Your task to perform on an android device: open app "Calculator" Image 0: 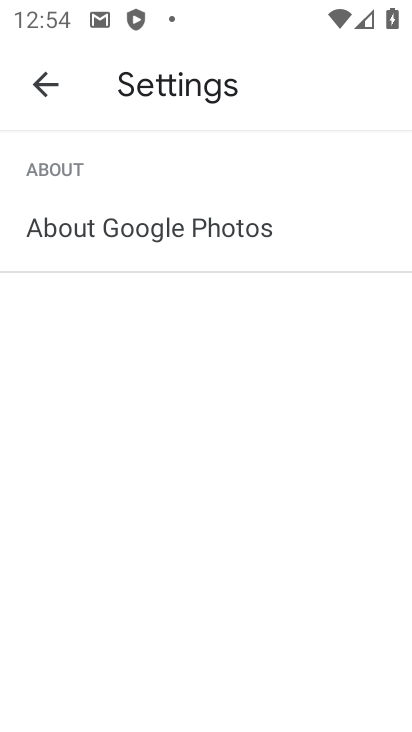
Step 0: press back button
Your task to perform on an android device: open app "Calculator" Image 1: 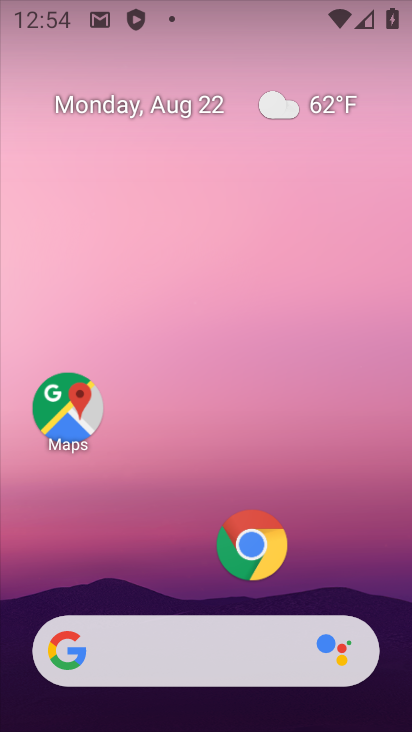
Step 1: drag from (150, 519) to (169, 25)
Your task to perform on an android device: open app "Calculator" Image 2: 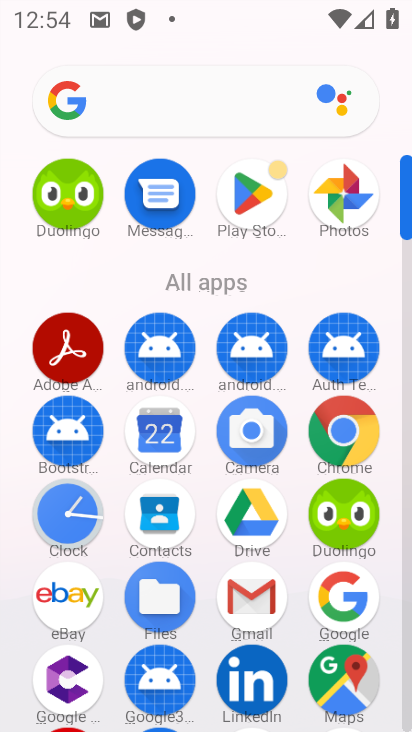
Step 2: click (251, 198)
Your task to perform on an android device: open app "Calculator" Image 3: 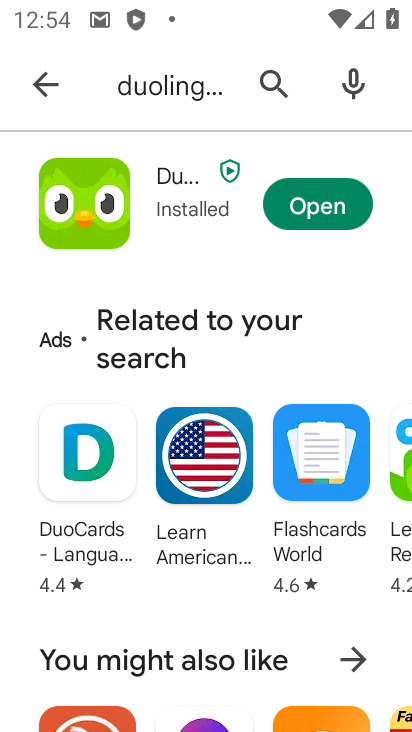
Step 3: click (258, 63)
Your task to perform on an android device: open app "Calculator" Image 4: 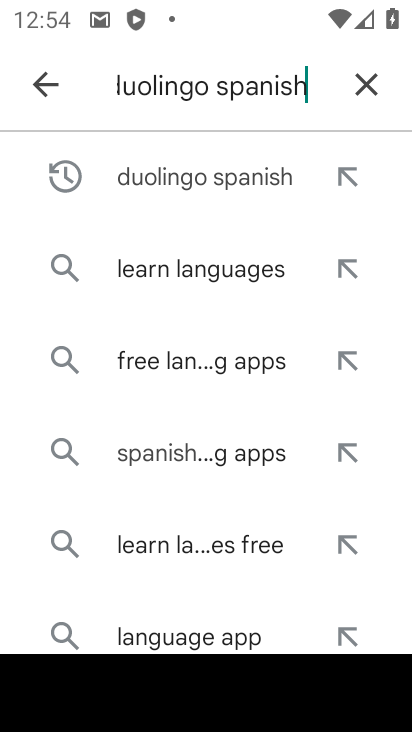
Step 4: click (374, 92)
Your task to perform on an android device: open app "Calculator" Image 5: 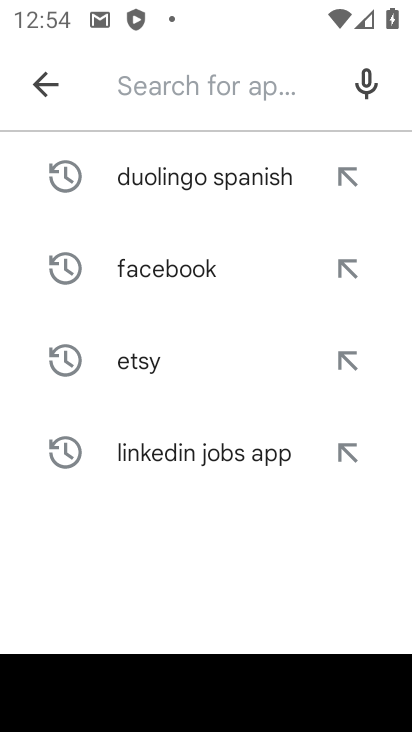
Step 5: press back button
Your task to perform on an android device: open app "Calculator" Image 6: 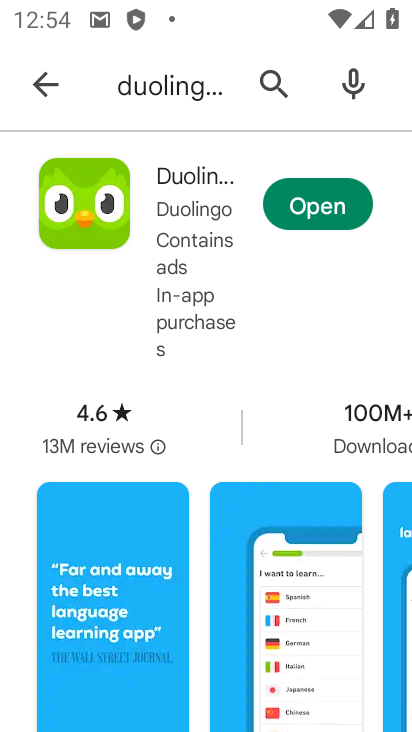
Step 6: press back button
Your task to perform on an android device: open app "Calculator" Image 7: 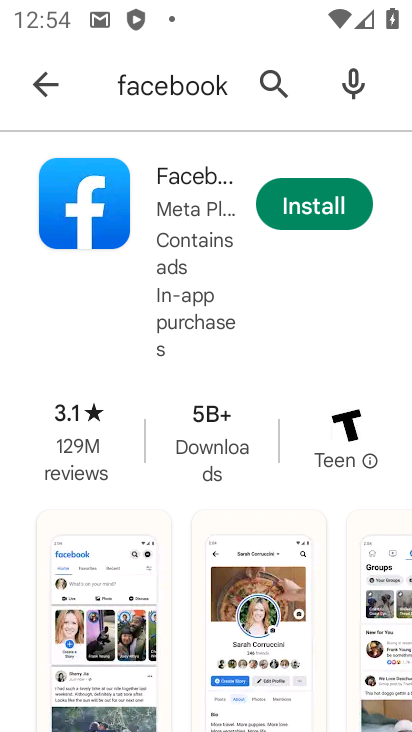
Step 7: press back button
Your task to perform on an android device: open app "Calculator" Image 8: 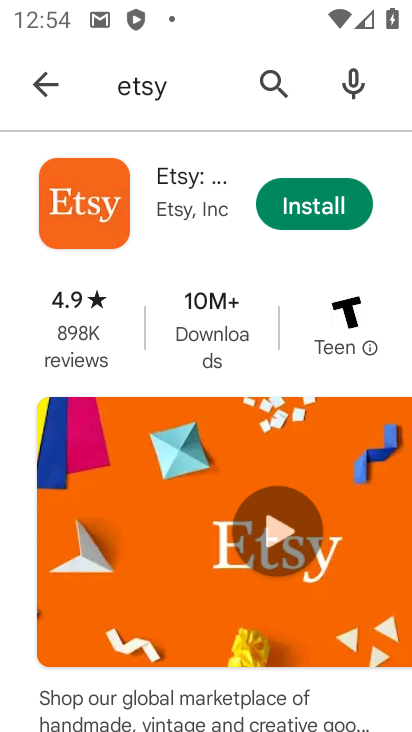
Step 8: press back button
Your task to perform on an android device: open app "Calculator" Image 9: 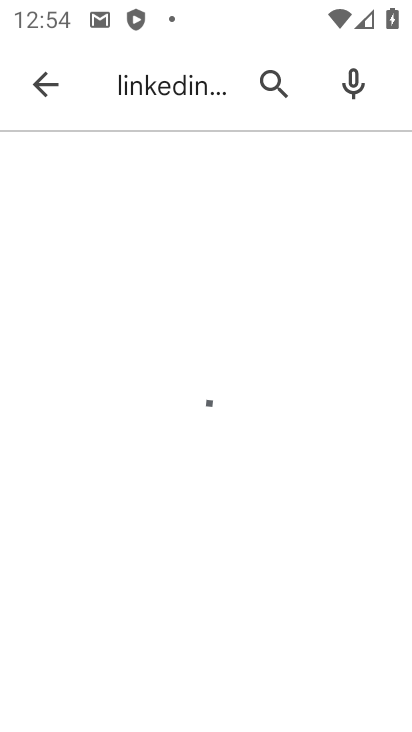
Step 9: press back button
Your task to perform on an android device: open app "Calculator" Image 10: 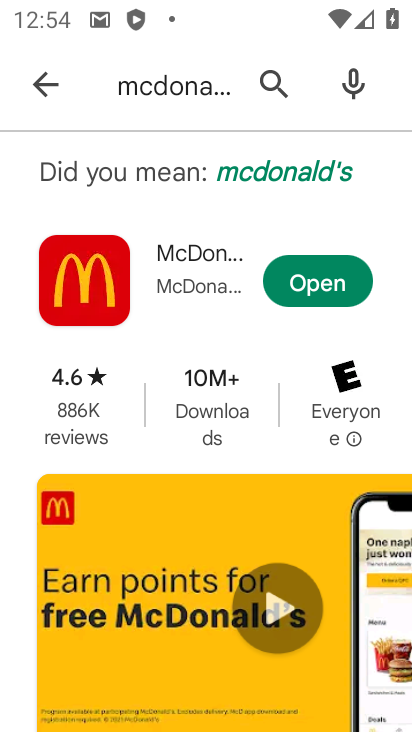
Step 10: press home button
Your task to perform on an android device: open app "Calculator" Image 11: 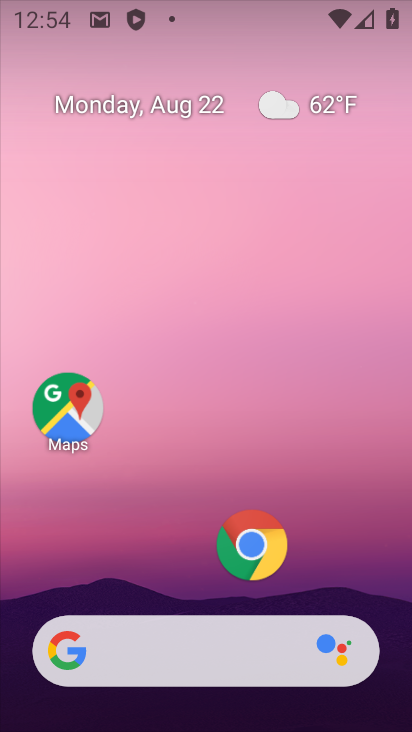
Step 11: drag from (175, 557) to (223, 59)
Your task to perform on an android device: open app "Calculator" Image 12: 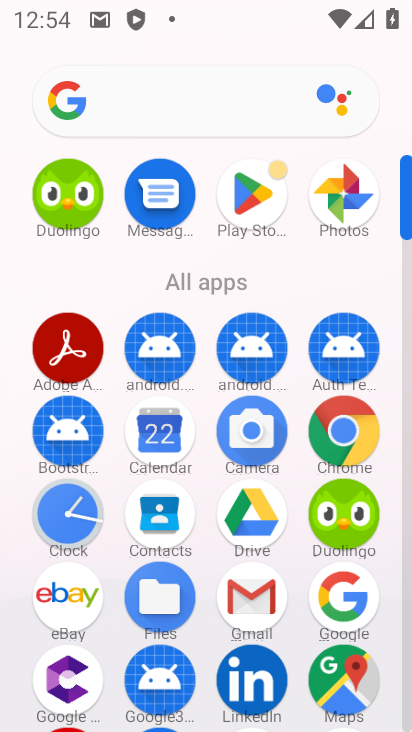
Step 12: drag from (231, 623) to (325, 171)
Your task to perform on an android device: open app "Calculator" Image 13: 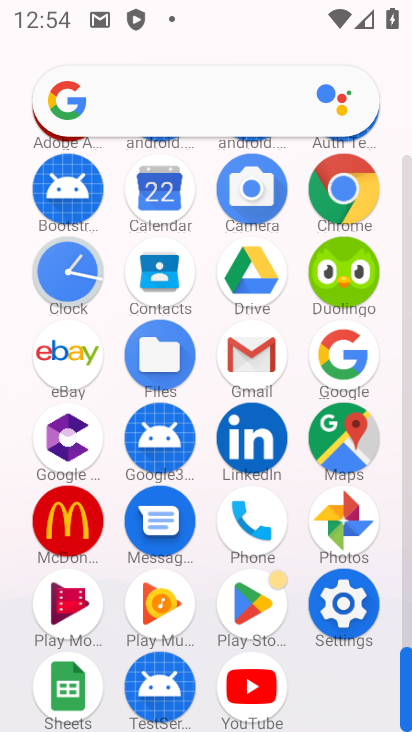
Step 13: click (243, 617)
Your task to perform on an android device: open app "Calculator" Image 14: 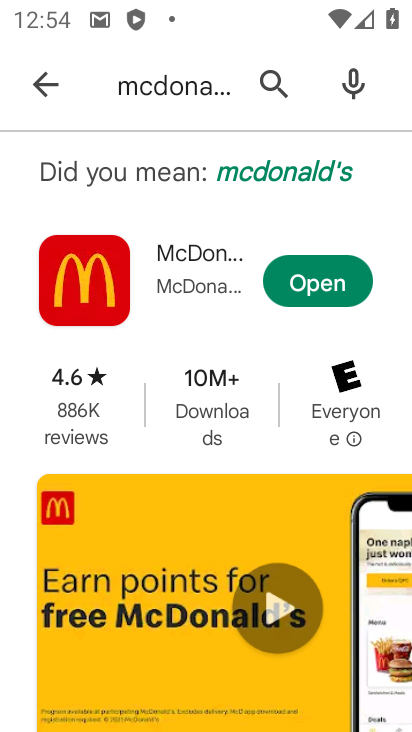
Step 14: click (266, 85)
Your task to perform on an android device: open app "Calculator" Image 15: 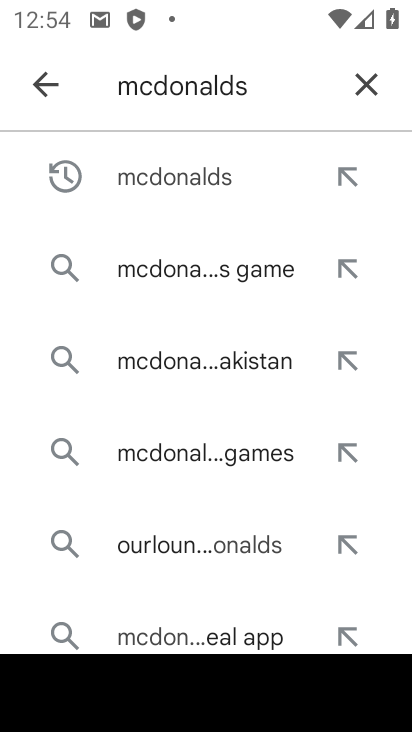
Step 15: click (367, 83)
Your task to perform on an android device: open app "Calculator" Image 16: 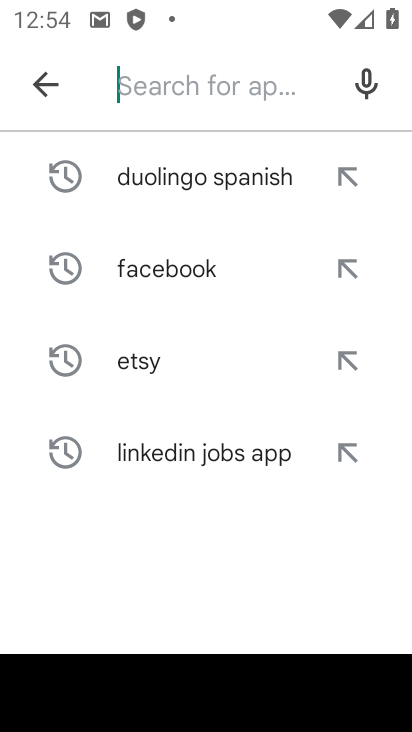
Step 16: click (158, 90)
Your task to perform on an android device: open app "Calculator" Image 17: 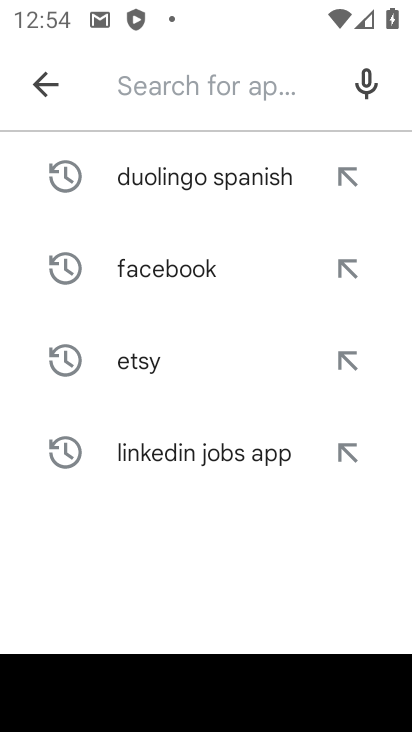
Step 17: type "Calculator"
Your task to perform on an android device: open app "Calculator" Image 18: 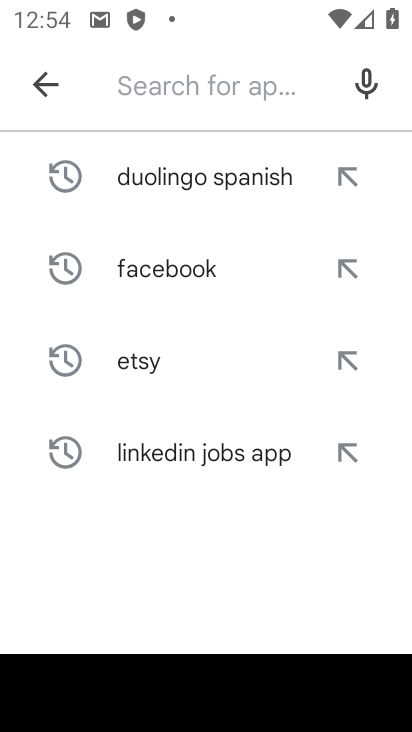
Step 18: click (183, 563)
Your task to perform on an android device: open app "Calculator" Image 19: 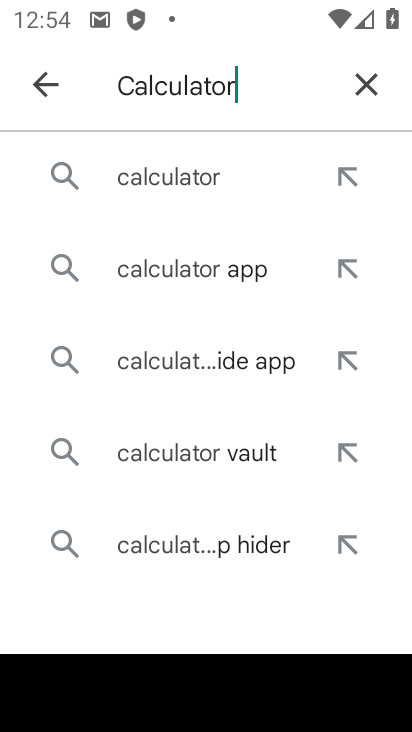
Step 19: click (180, 171)
Your task to perform on an android device: open app "Calculator" Image 20: 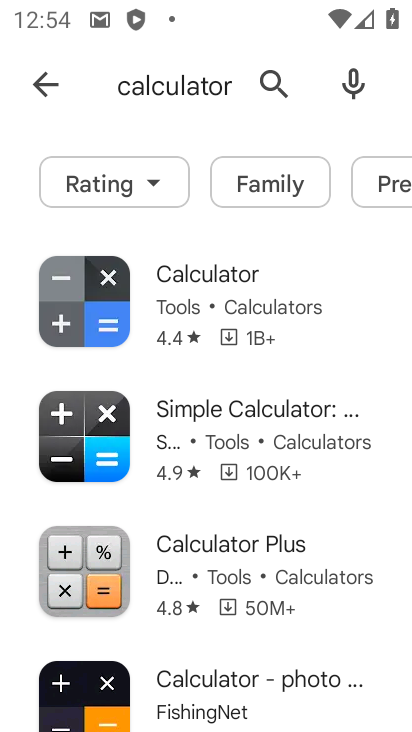
Step 20: click (219, 335)
Your task to perform on an android device: open app "Calculator" Image 21: 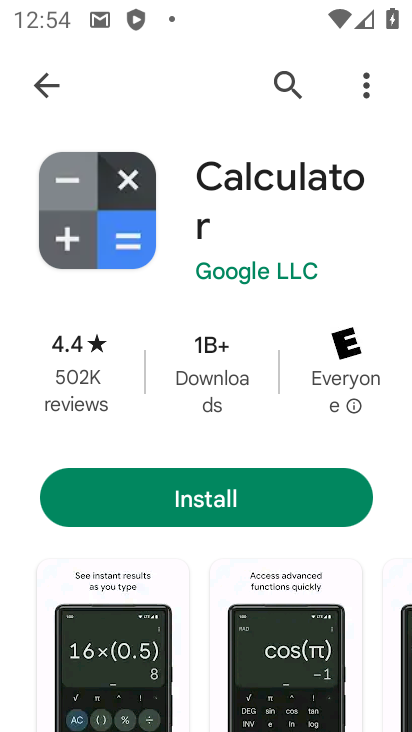
Step 21: task complete